Your task to perform on an android device: Clear all items from cart on costco. Add "macbook pro 13 inch" to the cart on costco, then select checkout. Image 0: 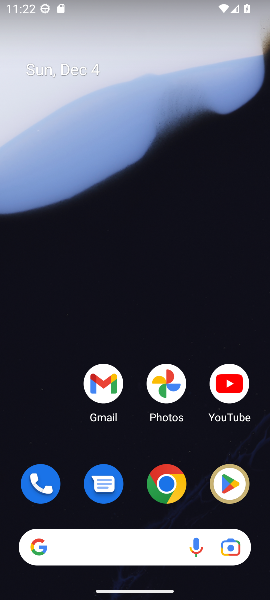
Step 0: click (161, 492)
Your task to perform on an android device: Clear all items from cart on costco. Add "macbook pro 13 inch" to the cart on costco, then select checkout. Image 1: 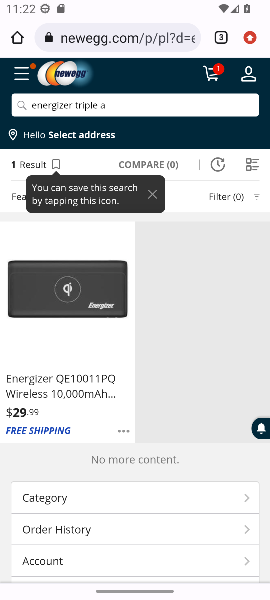
Step 1: click (116, 35)
Your task to perform on an android device: Clear all items from cart on costco. Add "macbook pro 13 inch" to the cart on costco, then select checkout. Image 2: 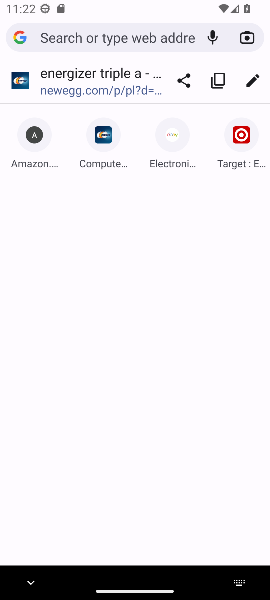
Step 2: type "costco.com"
Your task to perform on an android device: Clear all items from cart on costco. Add "macbook pro 13 inch" to the cart on costco, then select checkout. Image 3: 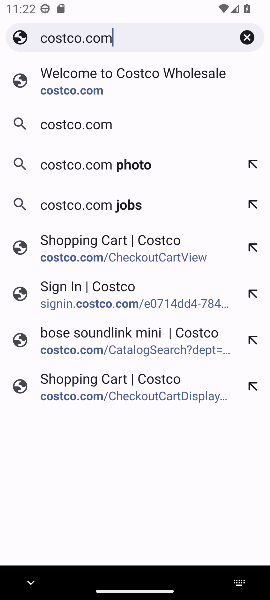
Step 3: click (75, 100)
Your task to perform on an android device: Clear all items from cart on costco. Add "macbook pro 13 inch" to the cart on costco, then select checkout. Image 4: 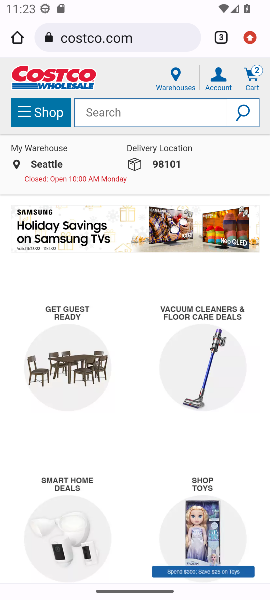
Step 4: click (250, 82)
Your task to perform on an android device: Clear all items from cart on costco. Add "macbook pro 13 inch" to the cart on costco, then select checkout. Image 5: 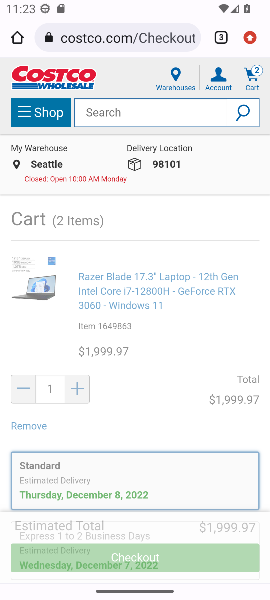
Step 5: drag from (139, 331) to (142, 148)
Your task to perform on an android device: Clear all items from cart on costco. Add "macbook pro 13 inch" to the cart on costco, then select checkout. Image 6: 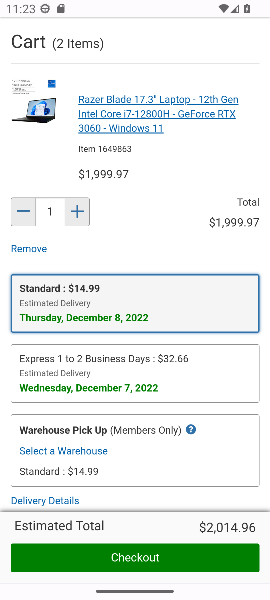
Step 6: drag from (165, 381) to (174, 200)
Your task to perform on an android device: Clear all items from cart on costco. Add "macbook pro 13 inch" to the cart on costco, then select checkout. Image 7: 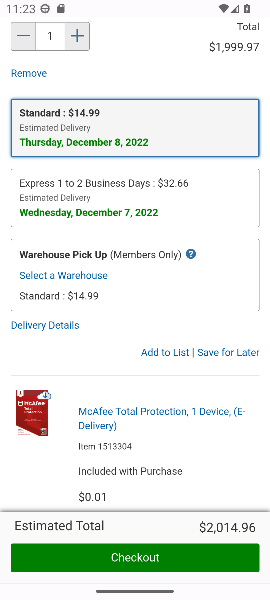
Step 7: click (231, 357)
Your task to perform on an android device: Clear all items from cart on costco. Add "macbook pro 13 inch" to the cart on costco, then select checkout. Image 8: 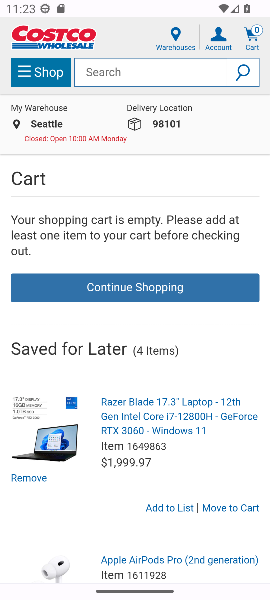
Step 8: click (108, 75)
Your task to perform on an android device: Clear all items from cart on costco. Add "macbook pro 13 inch" to the cart on costco, then select checkout. Image 9: 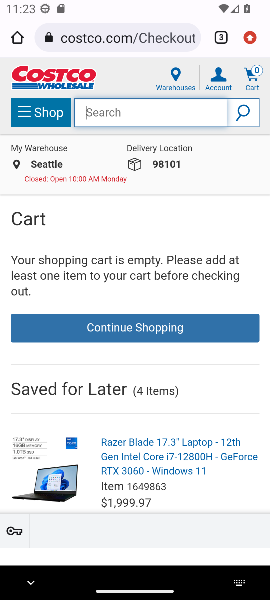
Step 9: type "macbook pro 13 inch"
Your task to perform on an android device: Clear all items from cart on costco. Add "macbook pro 13 inch" to the cart on costco, then select checkout. Image 10: 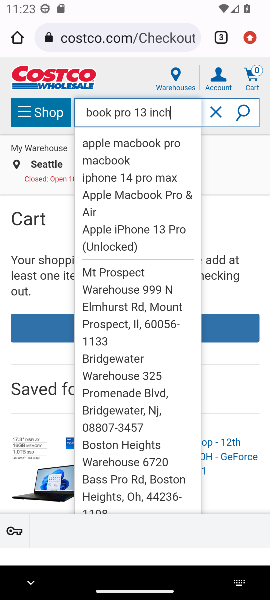
Step 10: click (245, 108)
Your task to perform on an android device: Clear all items from cart on costco. Add "macbook pro 13 inch" to the cart on costco, then select checkout. Image 11: 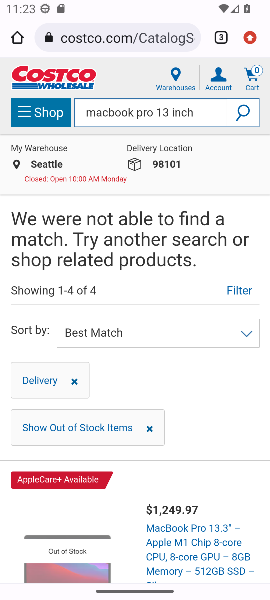
Step 11: task complete